Your task to perform on an android device: refresh tabs in the chrome app Image 0: 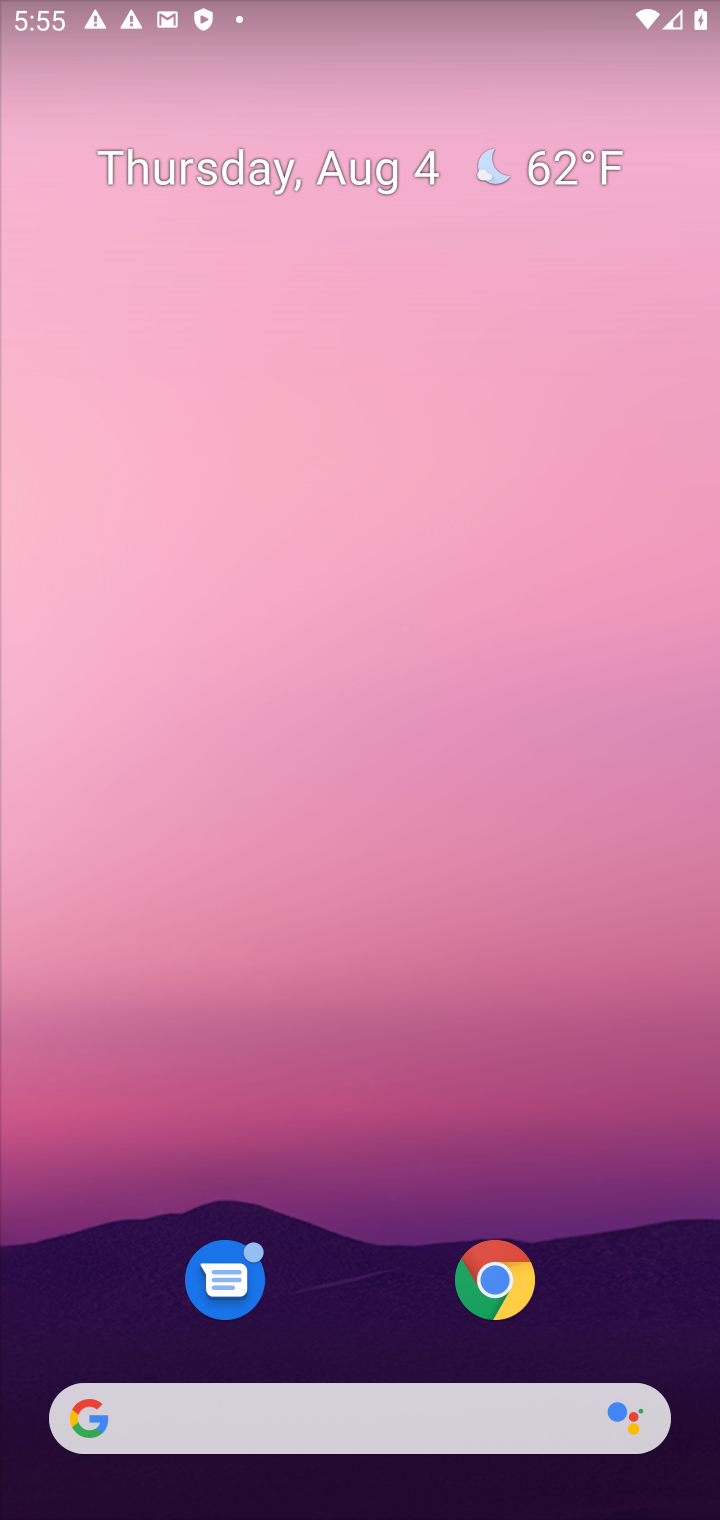
Step 0: click (513, 1291)
Your task to perform on an android device: refresh tabs in the chrome app Image 1: 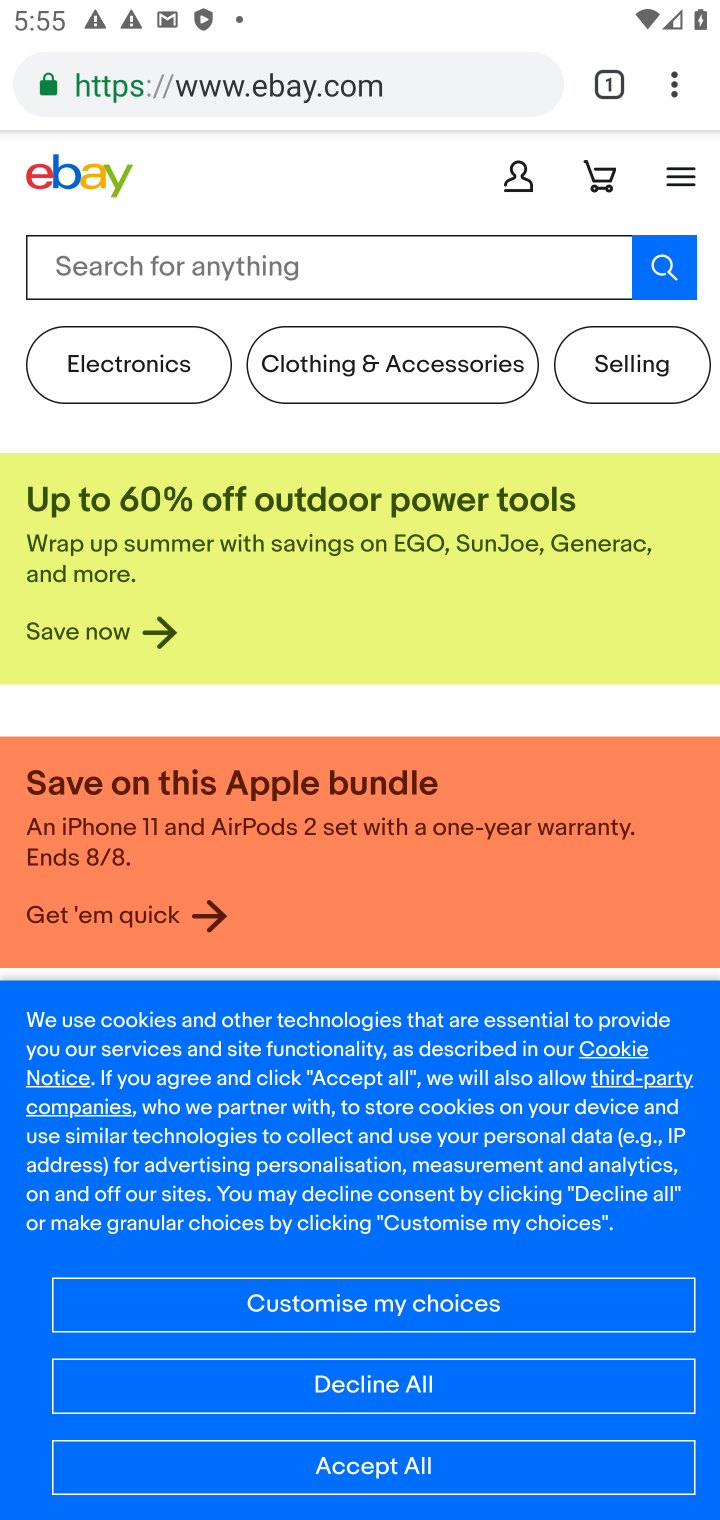
Step 1: click (678, 86)
Your task to perform on an android device: refresh tabs in the chrome app Image 2: 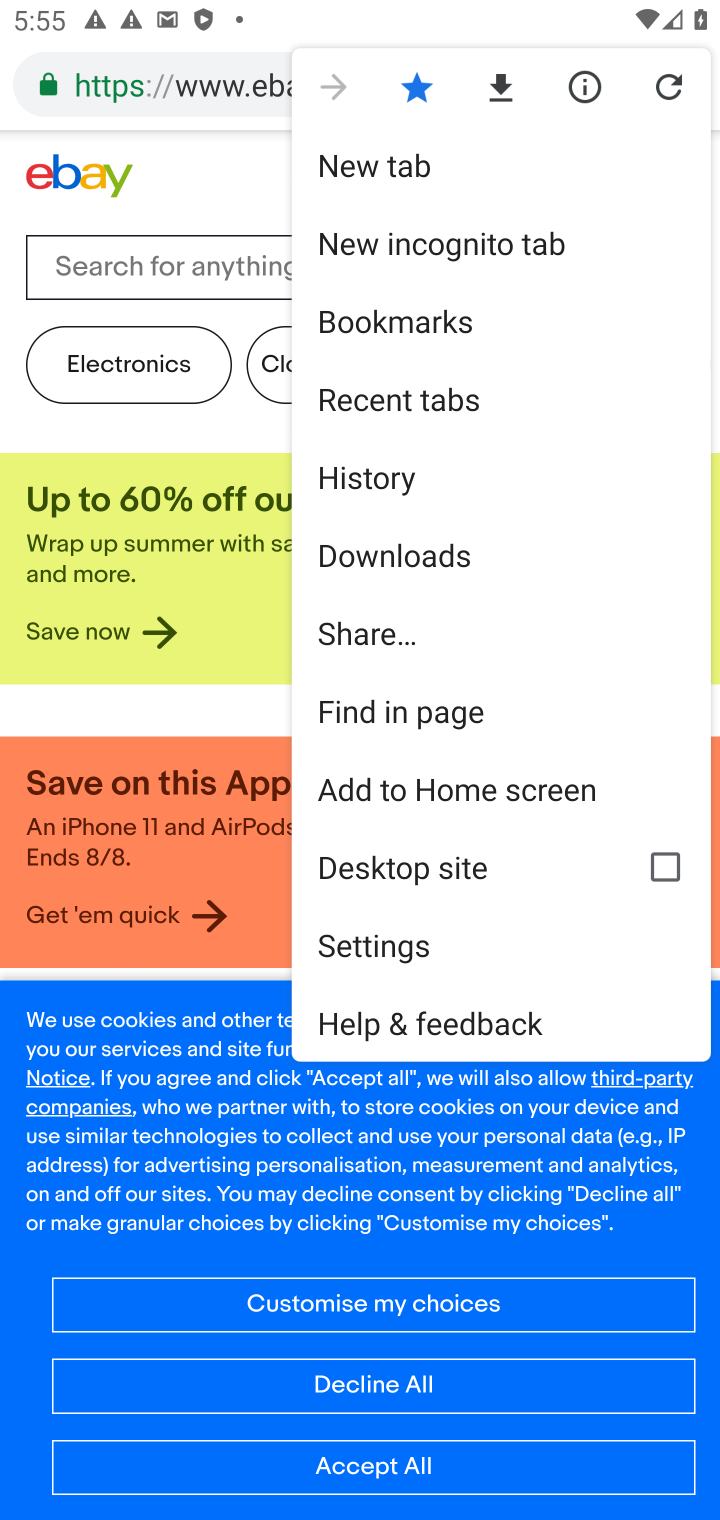
Step 2: click (669, 71)
Your task to perform on an android device: refresh tabs in the chrome app Image 3: 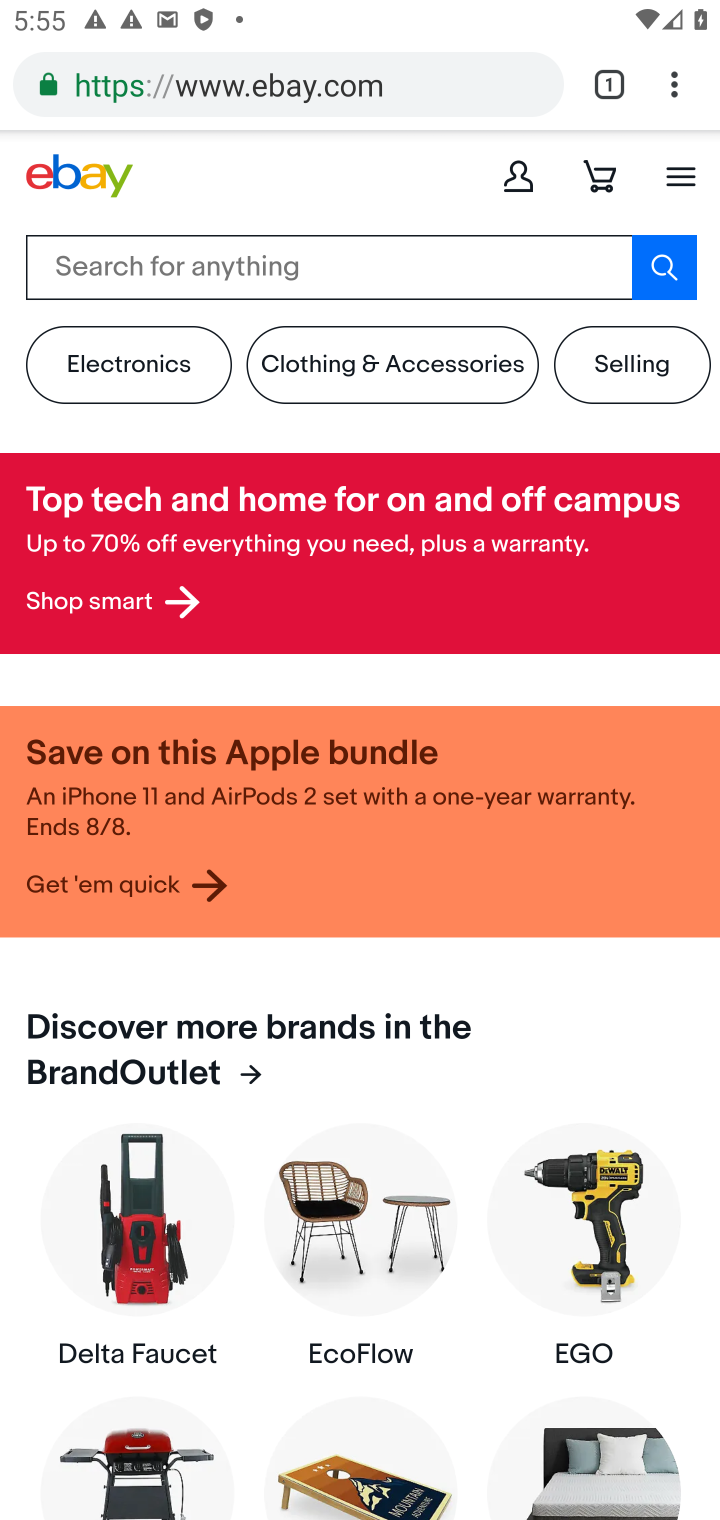
Step 3: task complete